Your task to perform on an android device: Open calendar and show me the fourth week of next month Image 0: 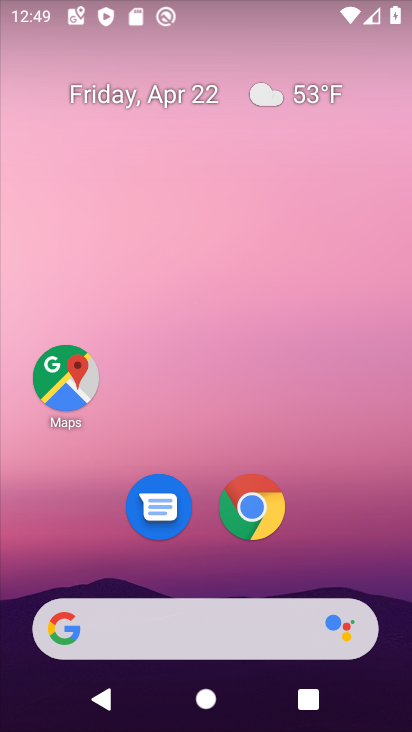
Step 0: drag from (306, 461) to (243, 130)
Your task to perform on an android device: Open calendar and show me the fourth week of next month Image 1: 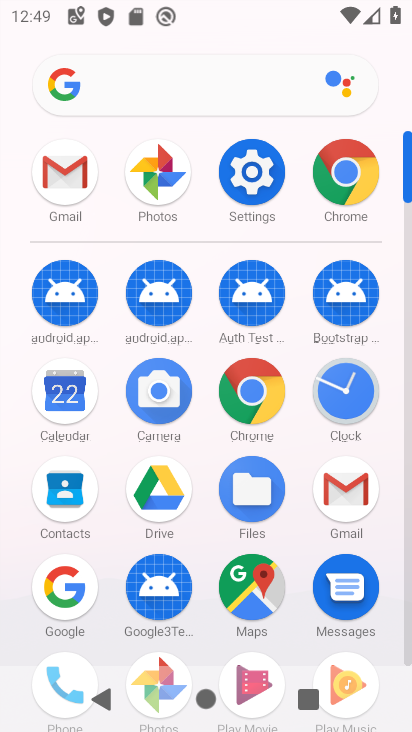
Step 1: click (72, 399)
Your task to perform on an android device: Open calendar and show me the fourth week of next month Image 2: 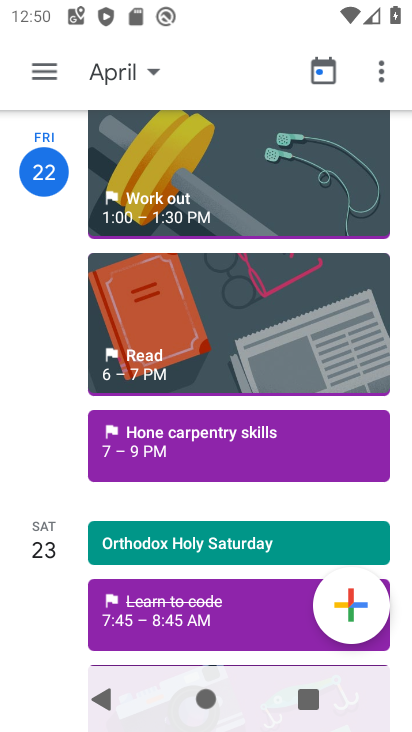
Step 2: click (112, 77)
Your task to perform on an android device: Open calendar and show me the fourth week of next month Image 3: 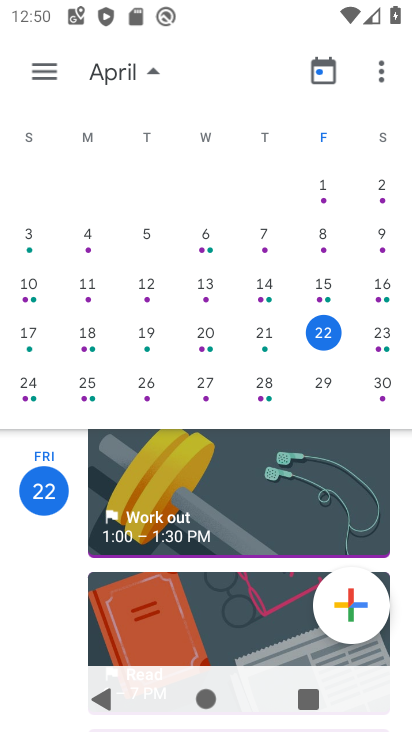
Step 3: drag from (366, 275) to (20, 275)
Your task to perform on an android device: Open calendar and show me the fourth week of next month Image 4: 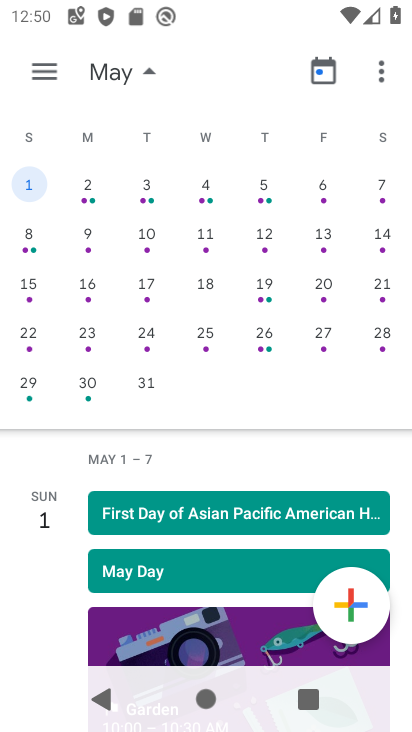
Step 4: click (28, 332)
Your task to perform on an android device: Open calendar and show me the fourth week of next month Image 5: 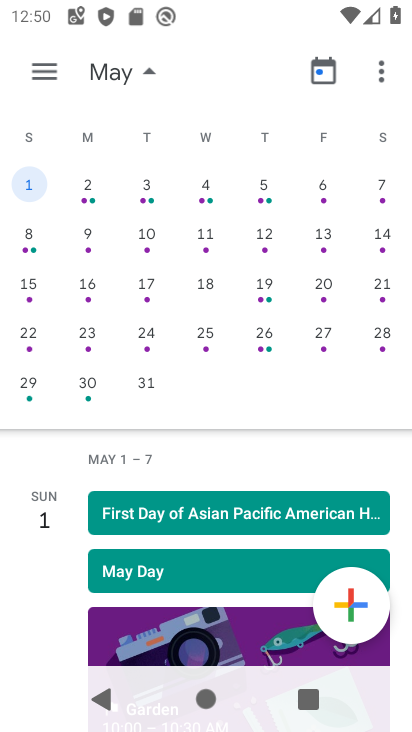
Step 5: click (30, 332)
Your task to perform on an android device: Open calendar and show me the fourth week of next month Image 6: 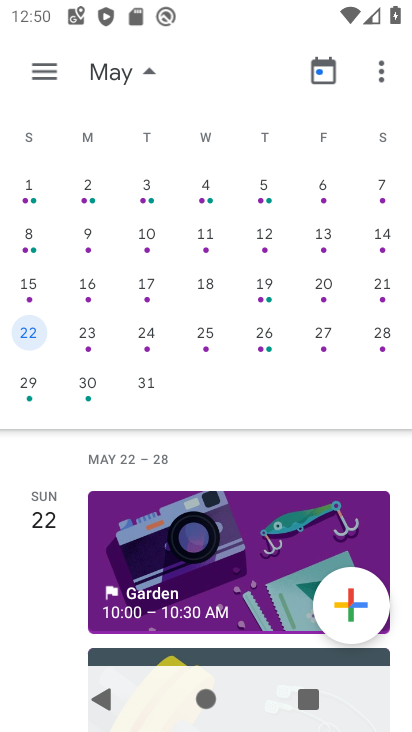
Step 6: click (37, 64)
Your task to perform on an android device: Open calendar and show me the fourth week of next month Image 7: 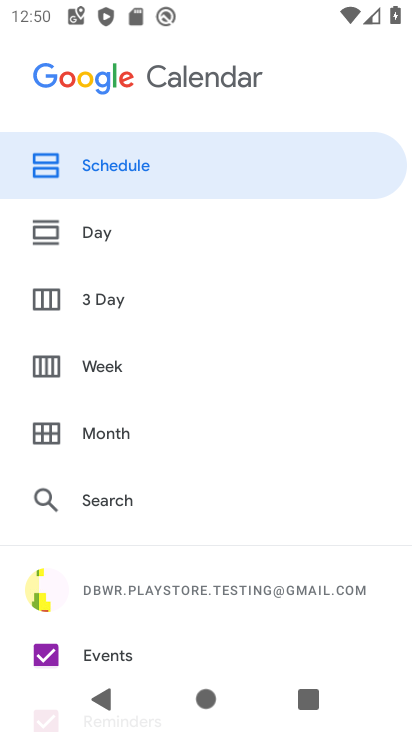
Step 7: click (76, 368)
Your task to perform on an android device: Open calendar and show me the fourth week of next month Image 8: 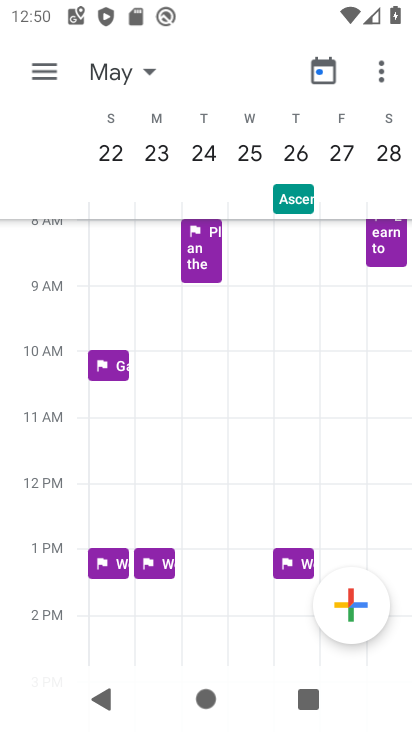
Step 8: task complete